Your task to perform on an android device: change keyboard looks Image 0: 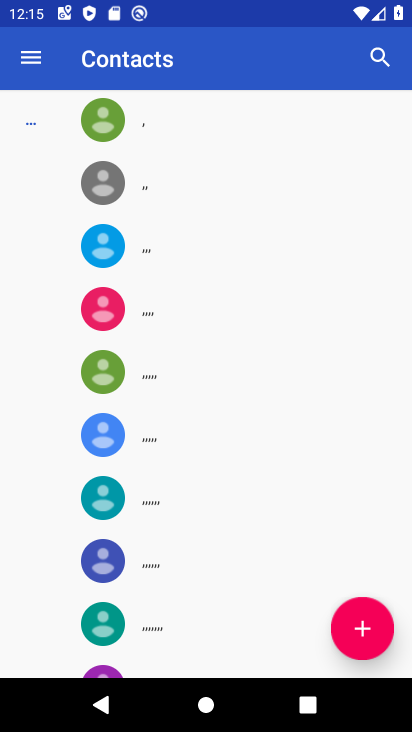
Step 0: press home button
Your task to perform on an android device: change keyboard looks Image 1: 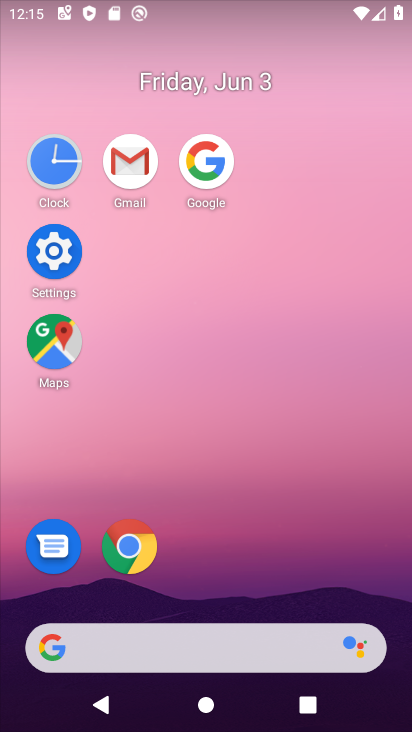
Step 1: click (40, 248)
Your task to perform on an android device: change keyboard looks Image 2: 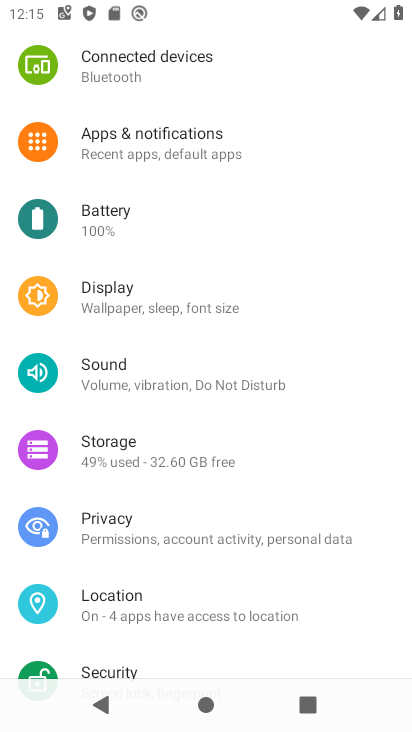
Step 2: drag from (214, 607) to (269, 251)
Your task to perform on an android device: change keyboard looks Image 3: 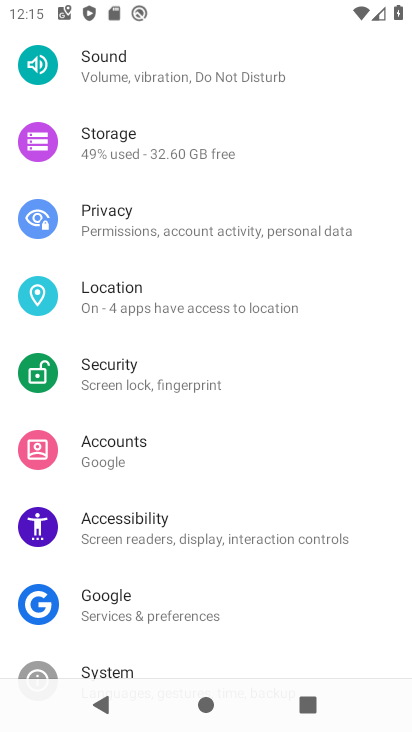
Step 3: drag from (261, 602) to (282, 239)
Your task to perform on an android device: change keyboard looks Image 4: 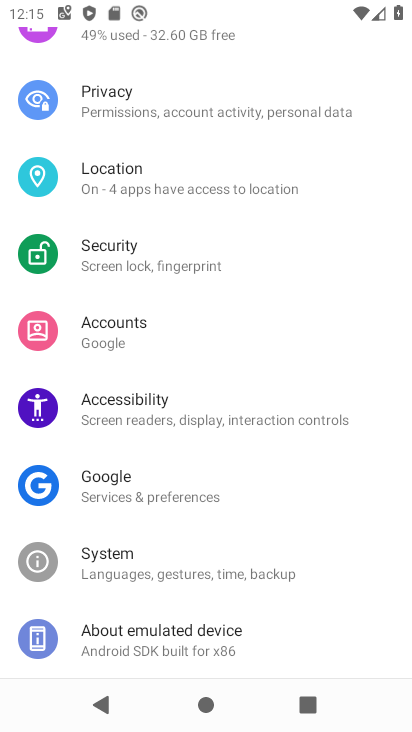
Step 4: click (185, 564)
Your task to perform on an android device: change keyboard looks Image 5: 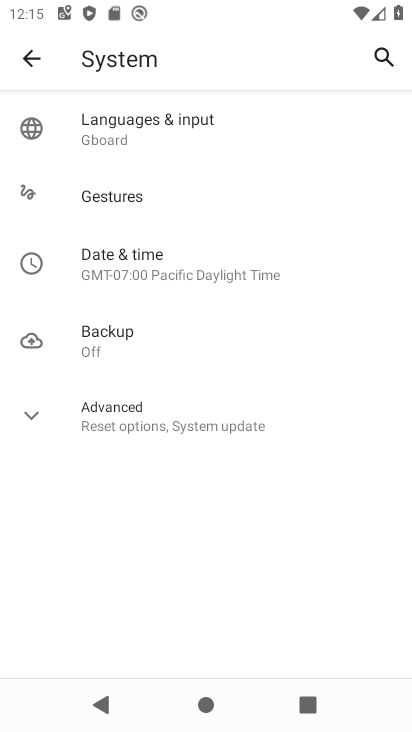
Step 5: click (138, 132)
Your task to perform on an android device: change keyboard looks Image 6: 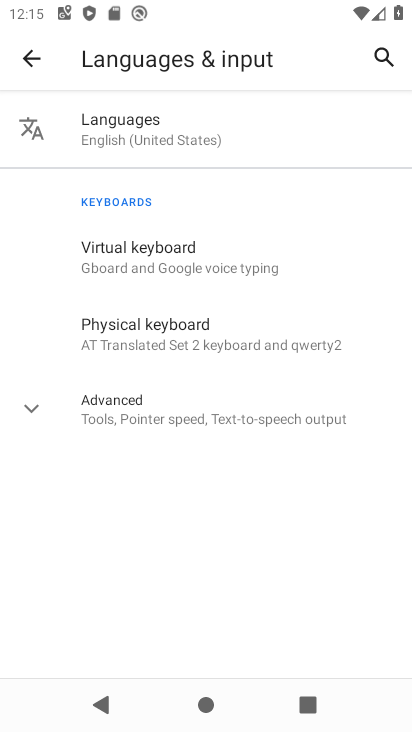
Step 6: click (210, 259)
Your task to perform on an android device: change keyboard looks Image 7: 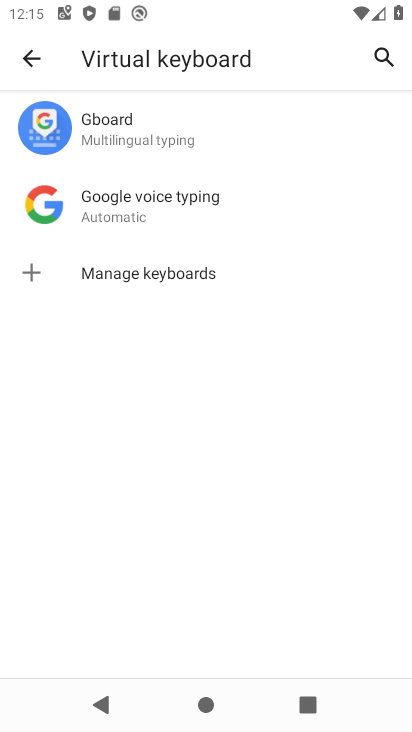
Step 7: click (120, 144)
Your task to perform on an android device: change keyboard looks Image 8: 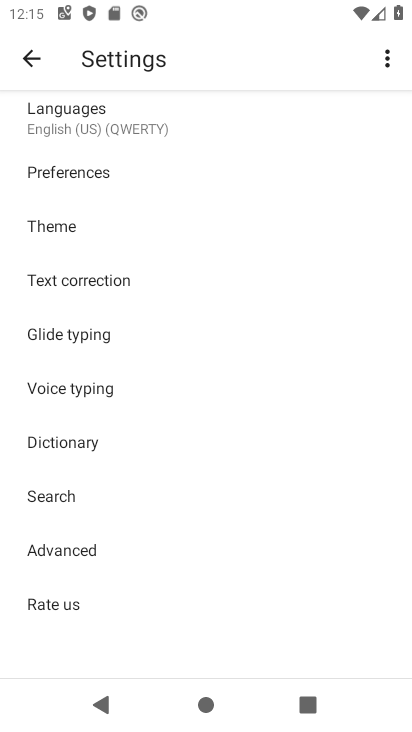
Step 8: click (110, 246)
Your task to perform on an android device: change keyboard looks Image 9: 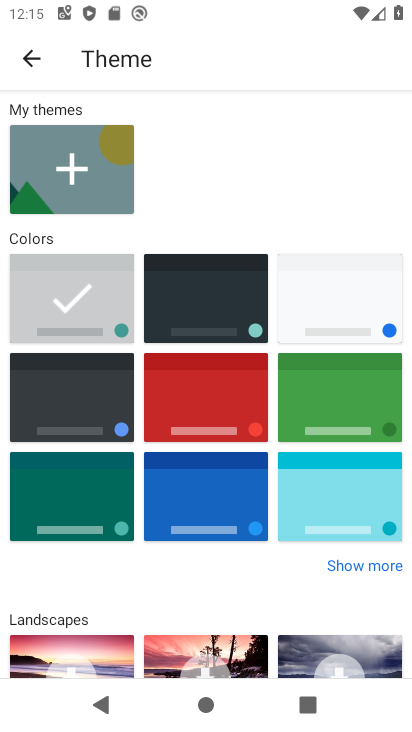
Step 9: click (249, 330)
Your task to perform on an android device: change keyboard looks Image 10: 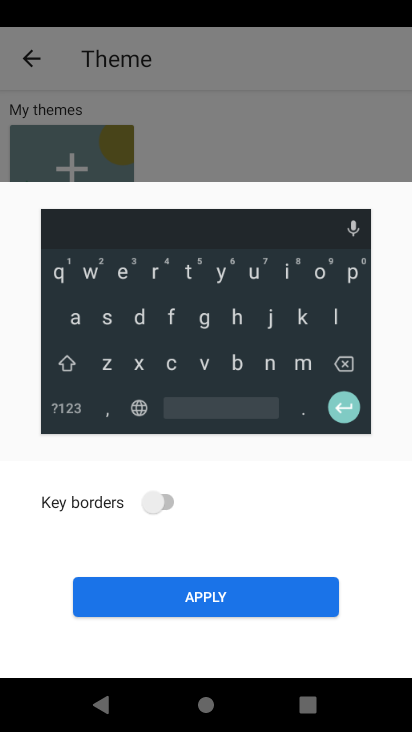
Step 10: click (166, 494)
Your task to perform on an android device: change keyboard looks Image 11: 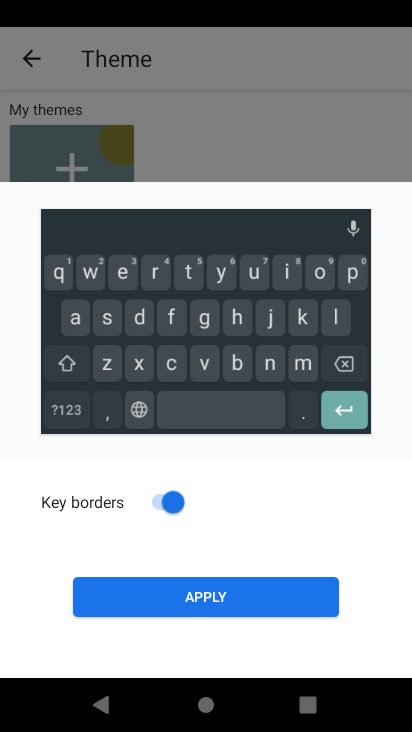
Step 11: click (271, 595)
Your task to perform on an android device: change keyboard looks Image 12: 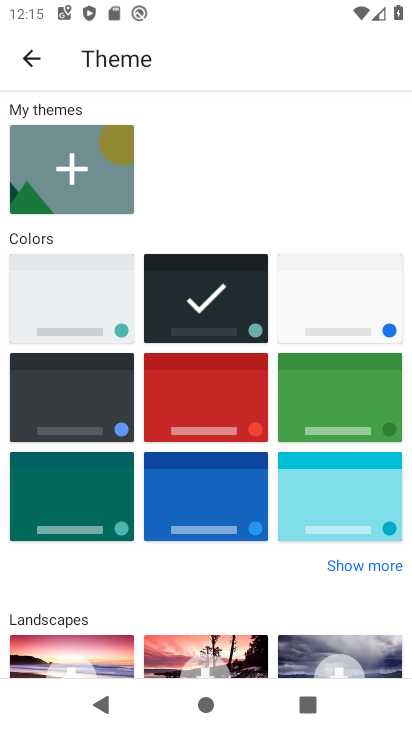
Step 12: task complete